Your task to perform on an android device: Add sony triple a to the cart on walmart, then select checkout. Image 0: 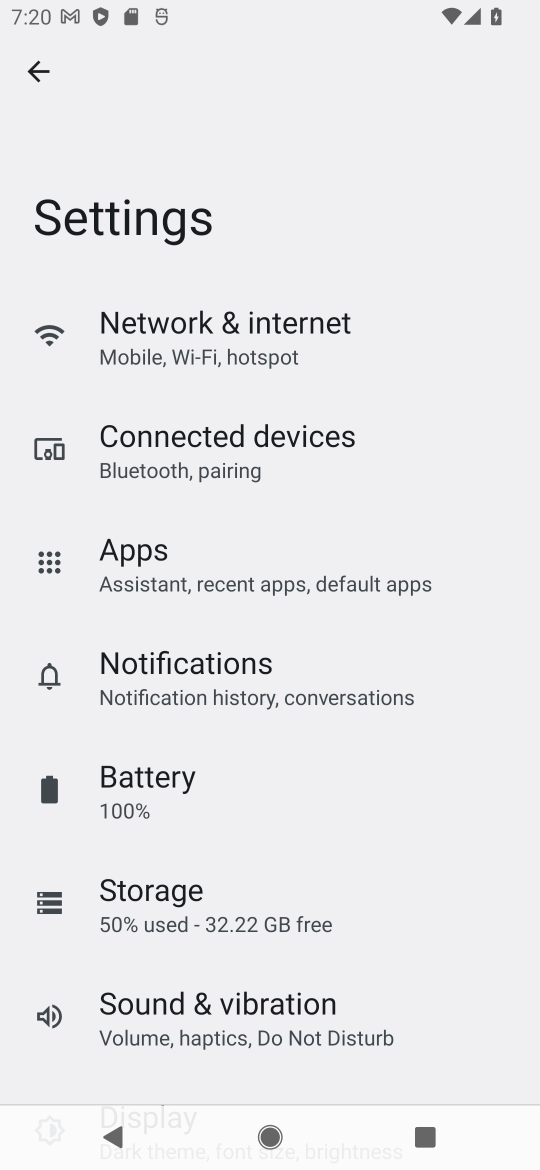
Step 0: press home button
Your task to perform on an android device: Add sony triple a to the cart on walmart, then select checkout. Image 1: 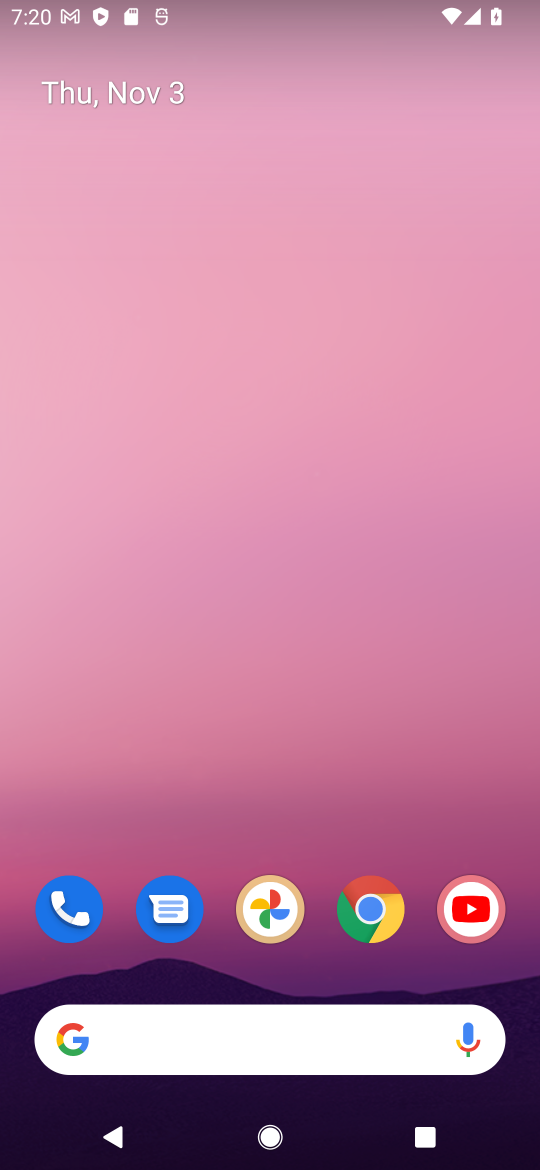
Step 1: drag from (168, 1035) to (232, 507)
Your task to perform on an android device: Add sony triple a to the cart on walmart, then select checkout. Image 2: 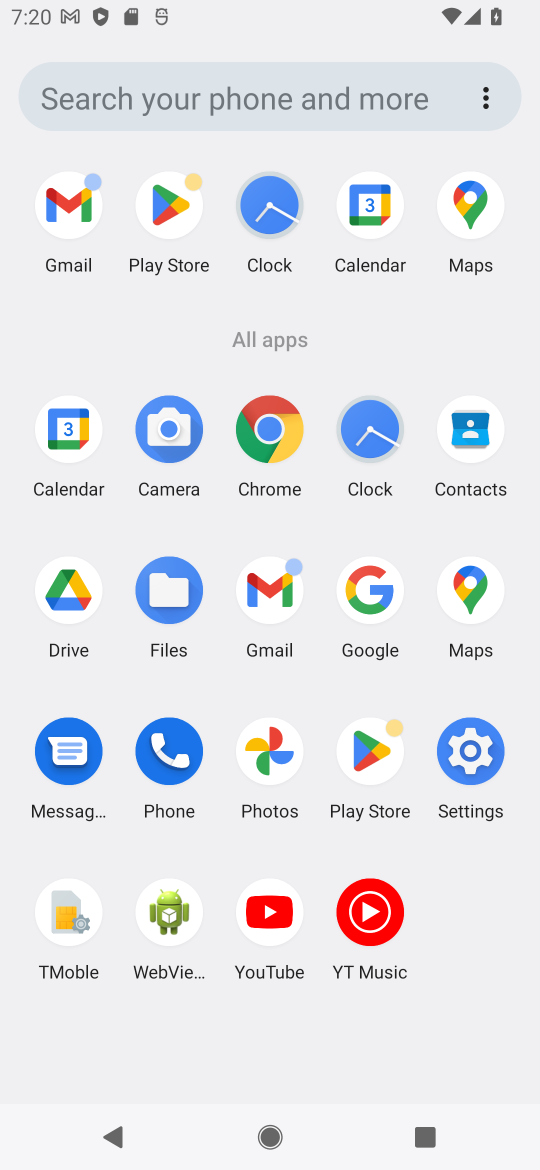
Step 2: click (372, 575)
Your task to perform on an android device: Add sony triple a to the cart on walmart, then select checkout. Image 3: 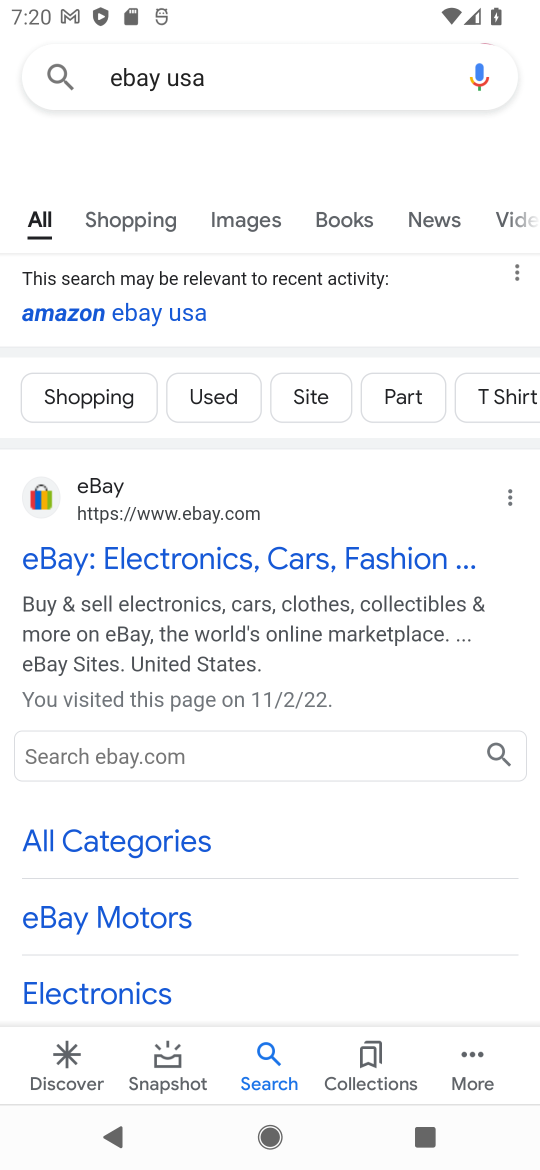
Step 3: click (280, 60)
Your task to perform on an android device: Add sony triple a to the cart on walmart, then select checkout. Image 4: 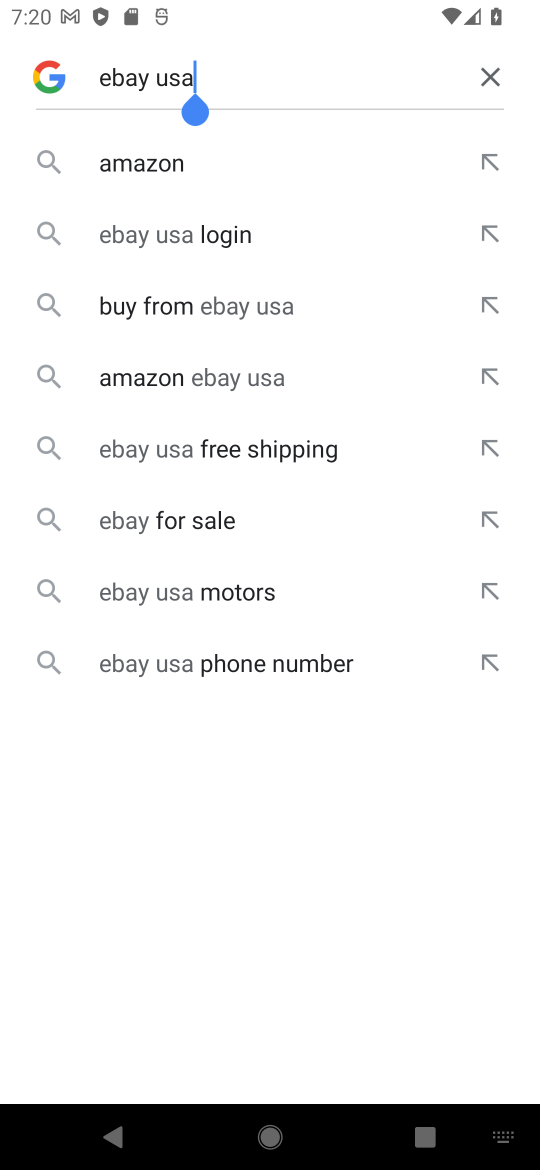
Step 4: click (487, 66)
Your task to perform on an android device: Add sony triple a to the cart on walmart, then select checkout. Image 5: 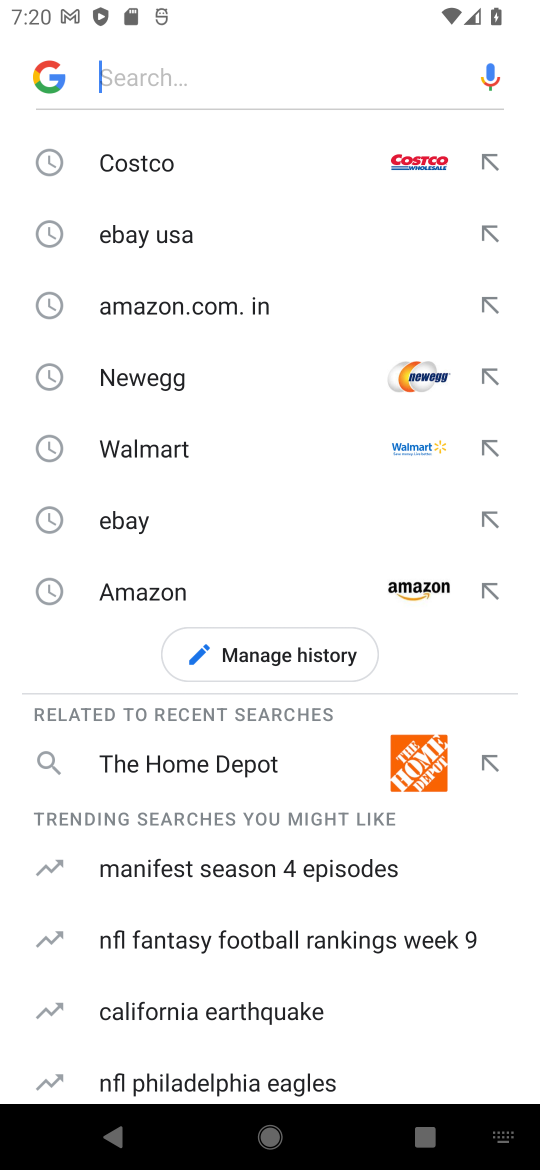
Step 5: click (281, 65)
Your task to perform on an android device: Add sony triple a to the cart on walmart, then select checkout. Image 6: 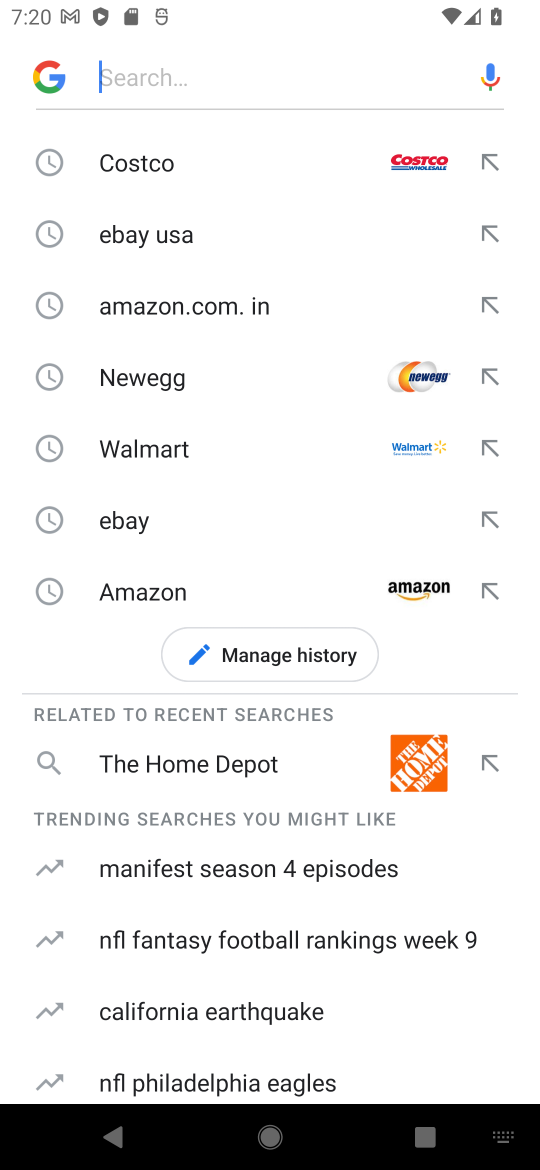
Step 6: type "walmart "
Your task to perform on an android device: Add sony triple a to the cart on walmart, then select checkout. Image 7: 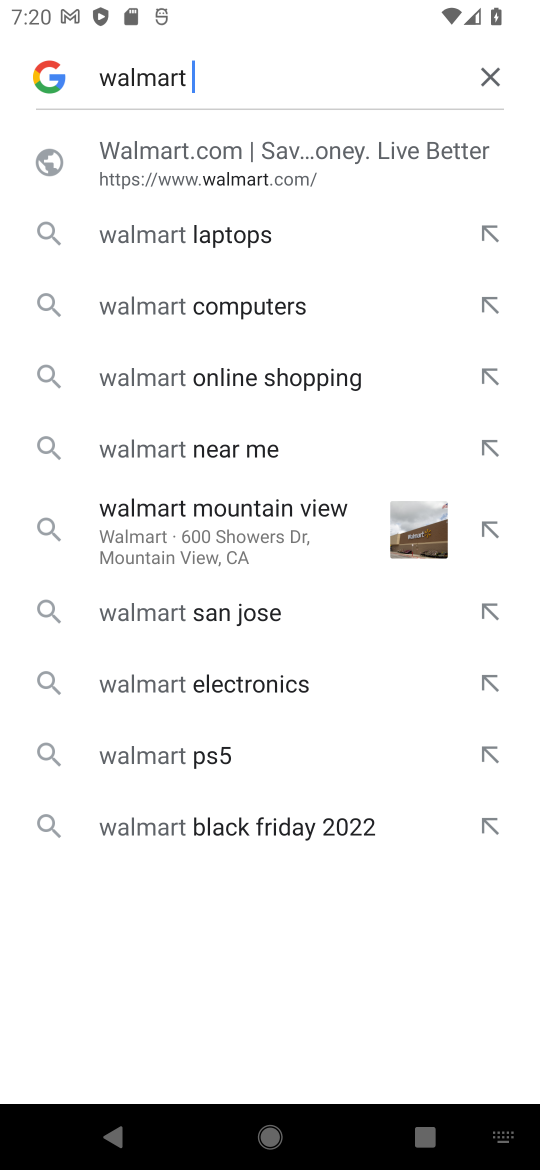
Step 7: click (182, 147)
Your task to perform on an android device: Add sony triple a to the cart on walmart, then select checkout. Image 8: 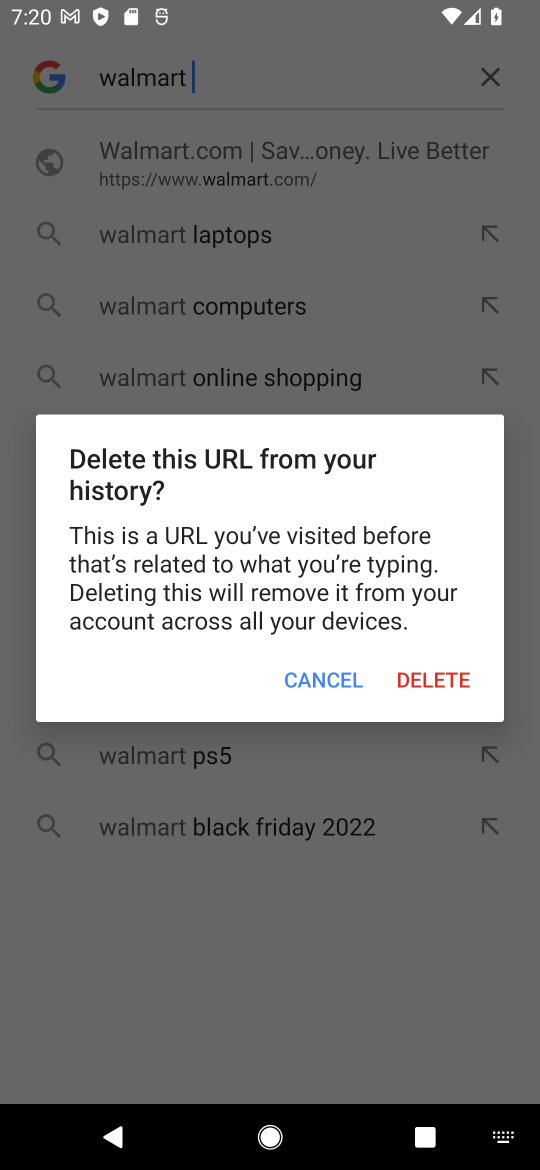
Step 8: click (349, 668)
Your task to perform on an android device: Add sony triple a to the cart on walmart, then select checkout. Image 9: 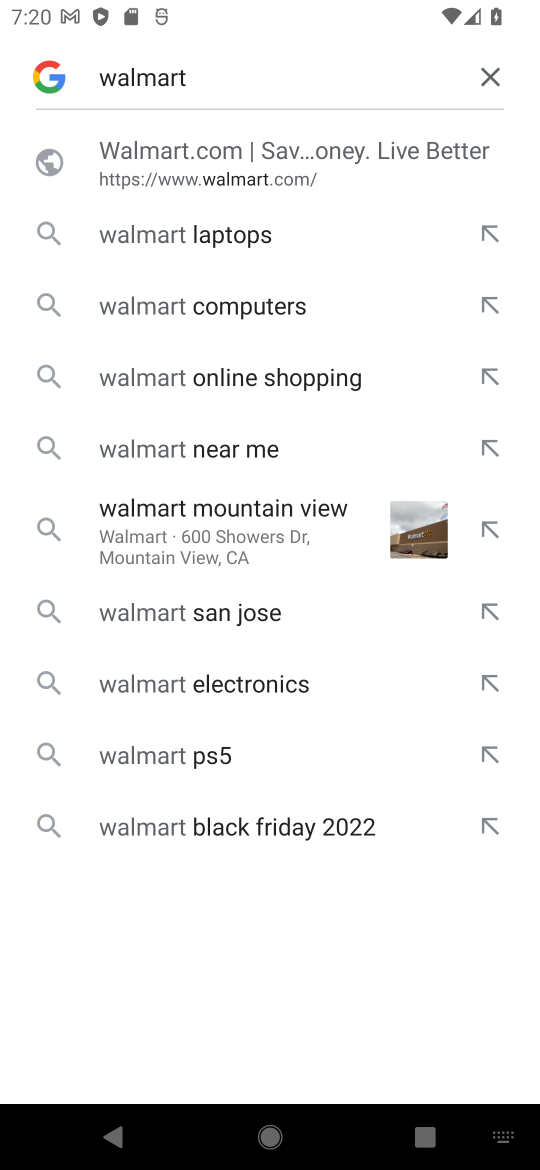
Step 9: click (131, 243)
Your task to perform on an android device: Add sony triple a to the cart on walmart, then select checkout. Image 10: 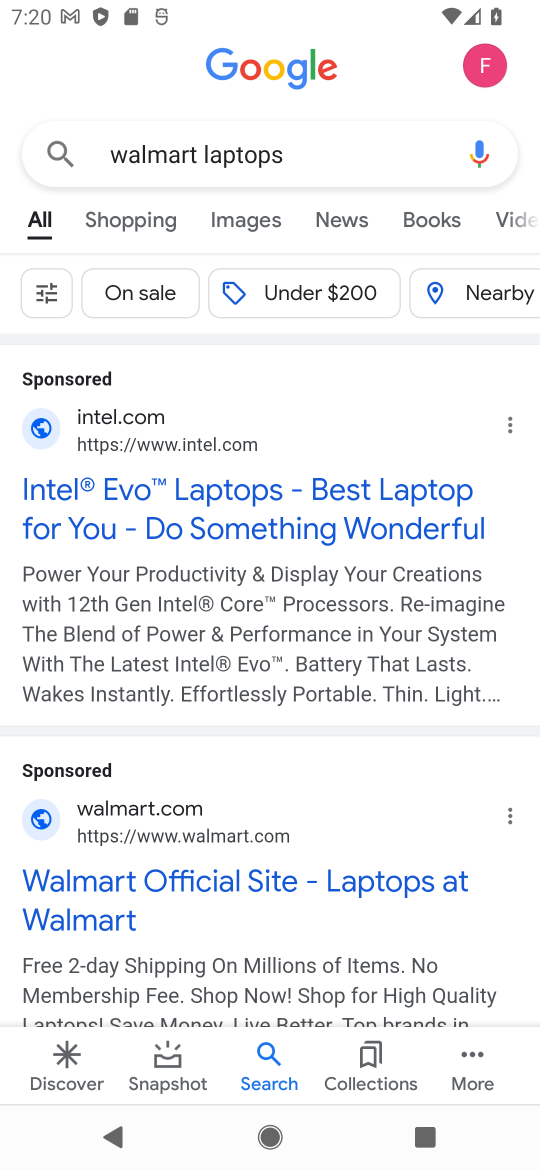
Step 10: drag from (230, 863) to (264, 178)
Your task to perform on an android device: Add sony triple a to the cart on walmart, then select checkout. Image 11: 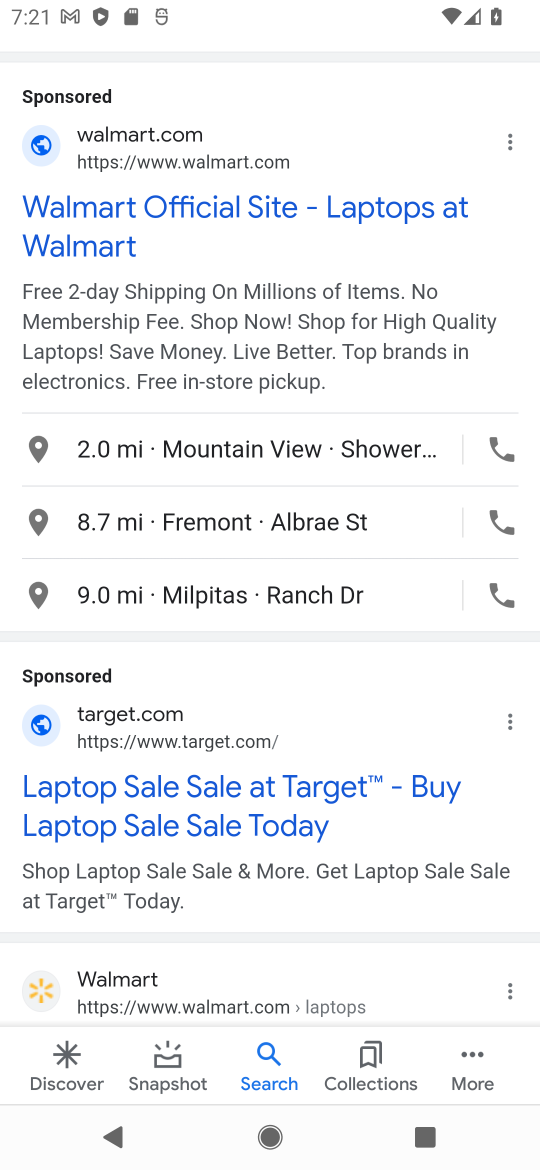
Step 11: drag from (158, 724) to (227, 230)
Your task to perform on an android device: Add sony triple a to the cart on walmart, then select checkout. Image 12: 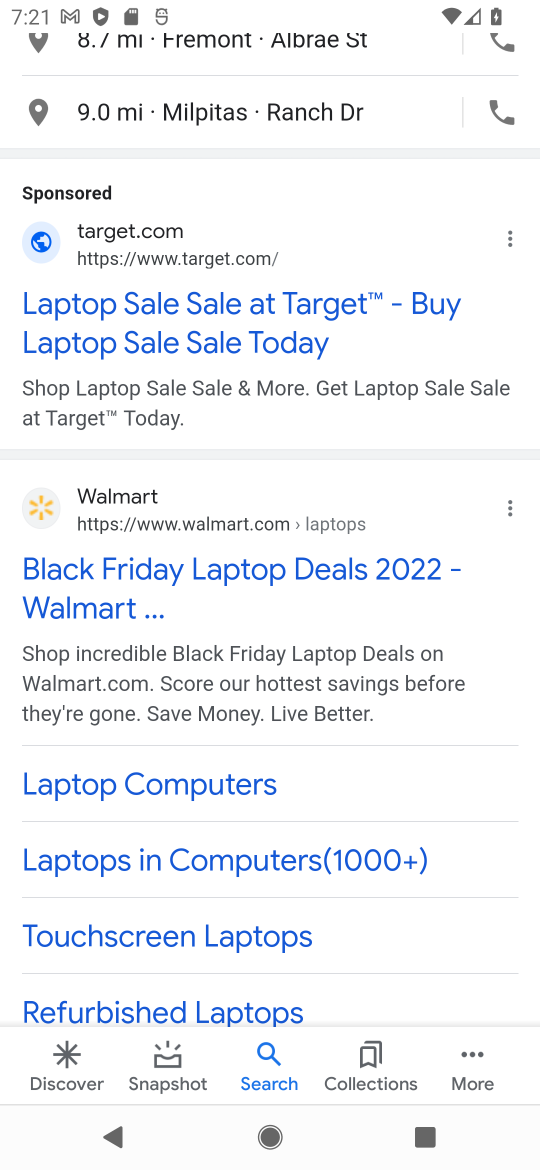
Step 12: click (41, 490)
Your task to perform on an android device: Add sony triple a to the cart on walmart, then select checkout. Image 13: 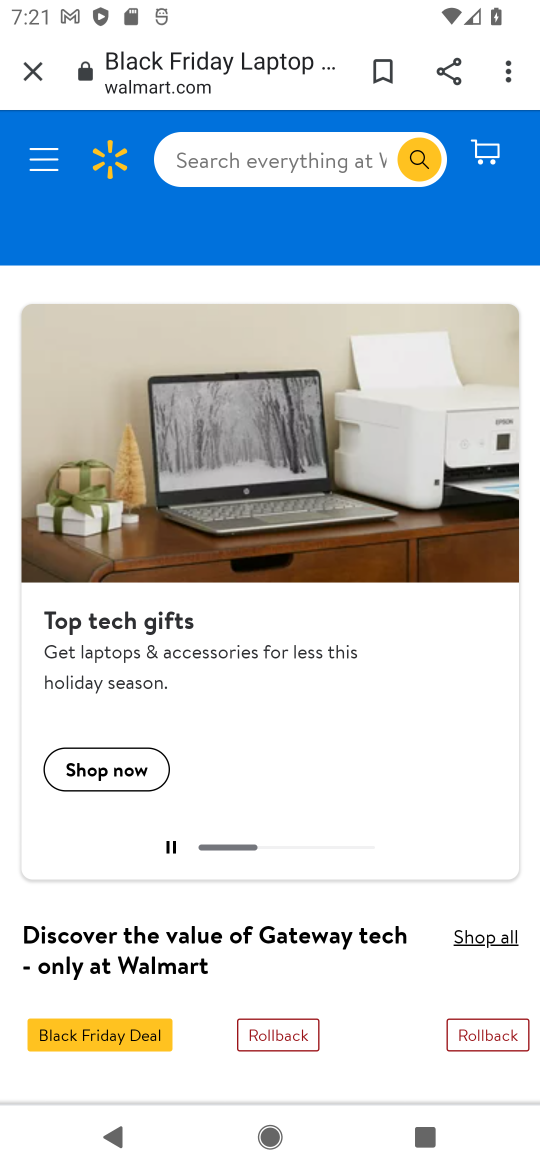
Step 13: click (284, 154)
Your task to perform on an android device: Add sony triple a to the cart on walmart, then select checkout. Image 14: 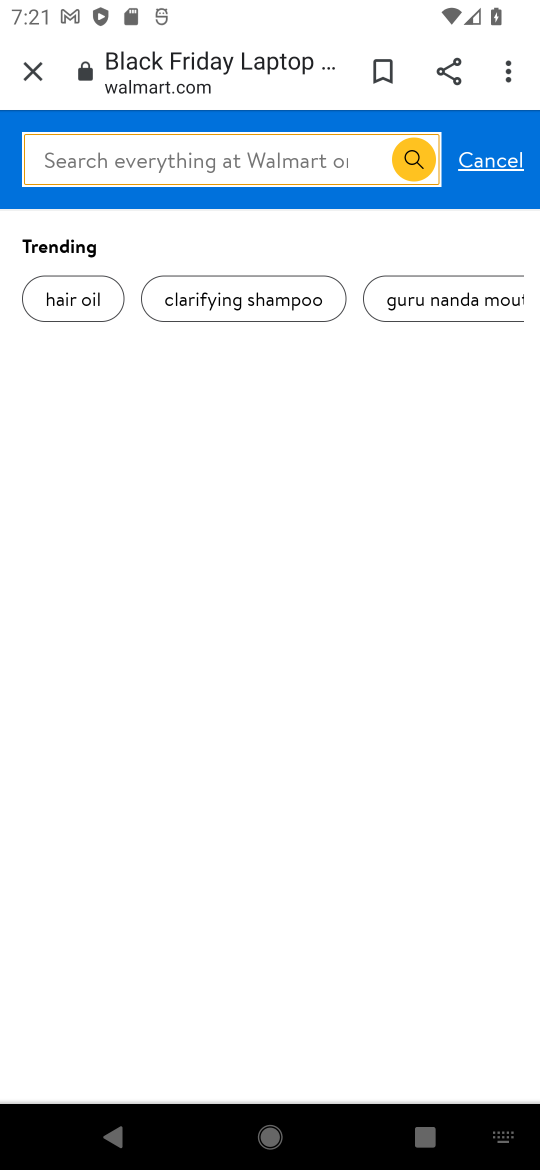
Step 14: click (191, 144)
Your task to perform on an android device: Add sony triple a to the cart on walmart, then select checkout. Image 15: 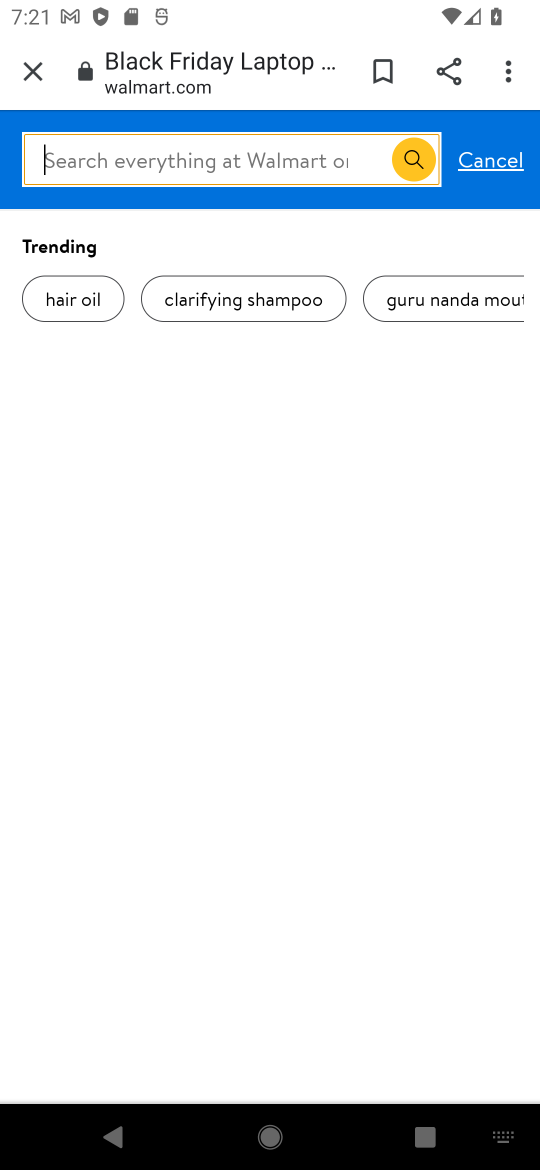
Step 15: type "sony triple  "
Your task to perform on an android device: Add sony triple a to the cart on walmart, then select checkout. Image 16: 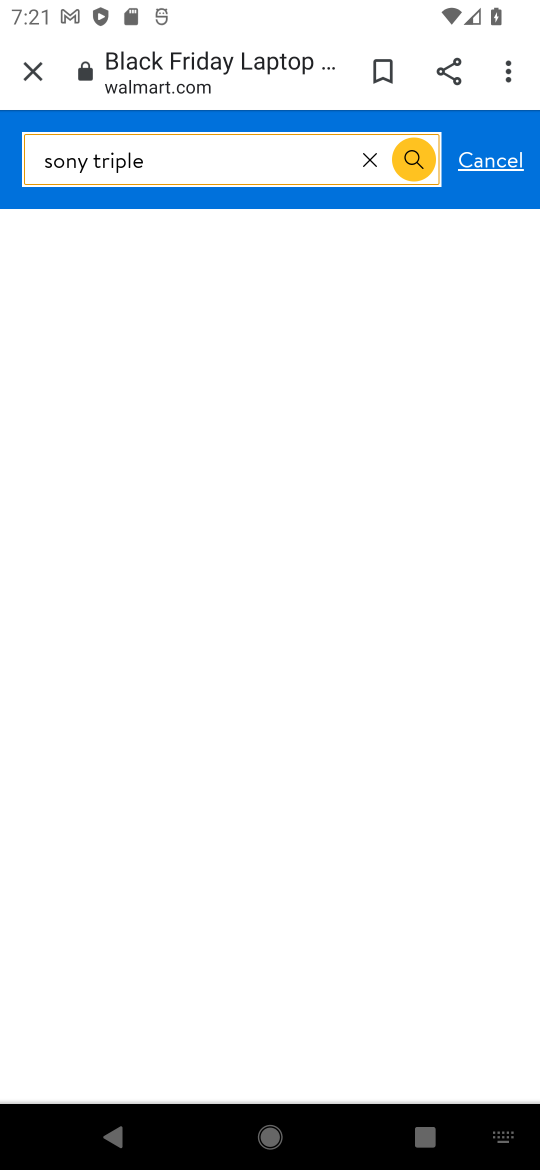
Step 16: click (405, 151)
Your task to perform on an android device: Add sony triple a to the cart on walmart, then select checkout. Image 17: 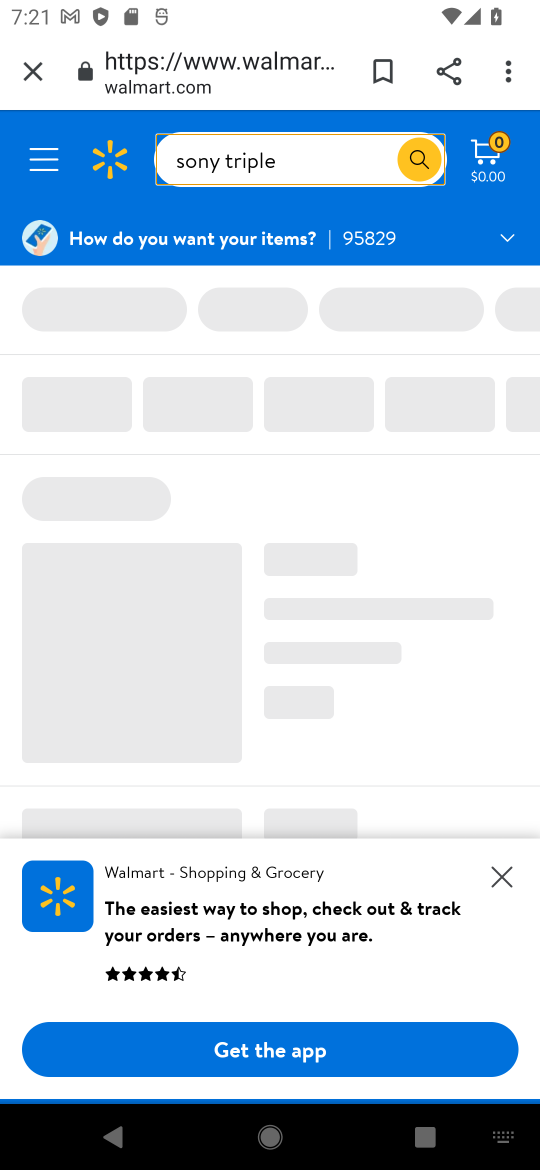
Step 17: click (430, 172)
Your task to perform on an android device: Add sony triple a to the cart on walmart, then select checkout. Image 18: 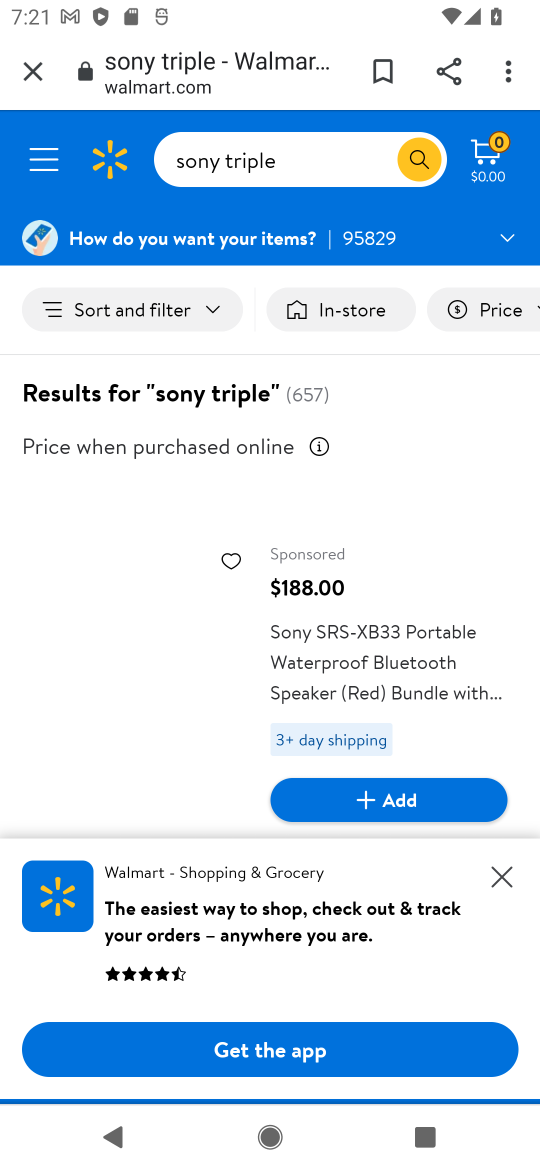
Step 18: click (495, 889)
Your task to perform on an android device: Add sony triple a to the cart on walmart, then select checkout. Image 19: 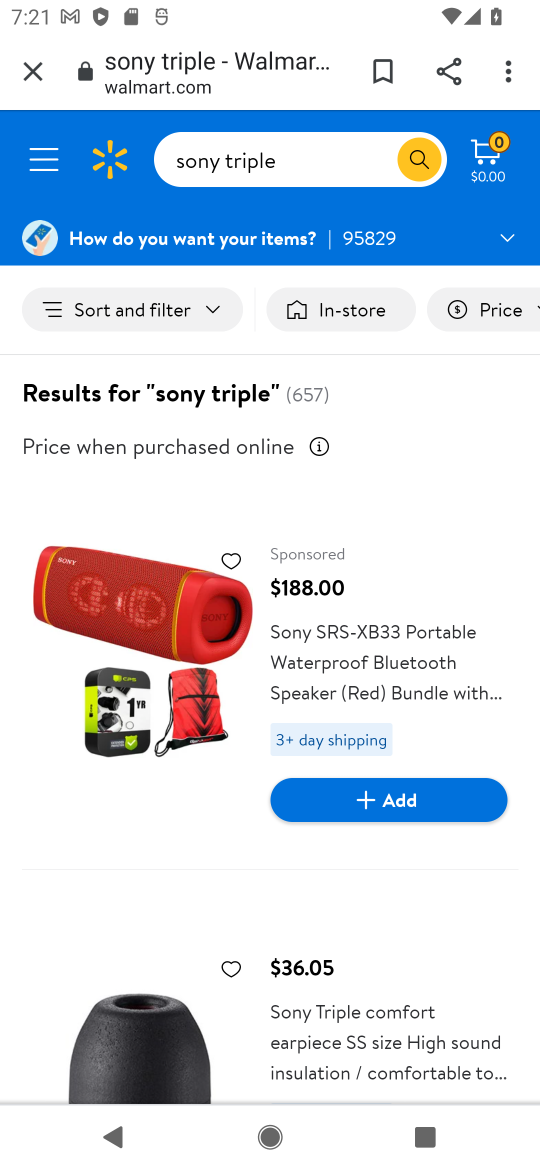
Step 19: drag from (80, 1099) to (156, 558)
Your task to perform on an android device: Add sony triple a to the cart on walmart, then select checkout. Image 20: 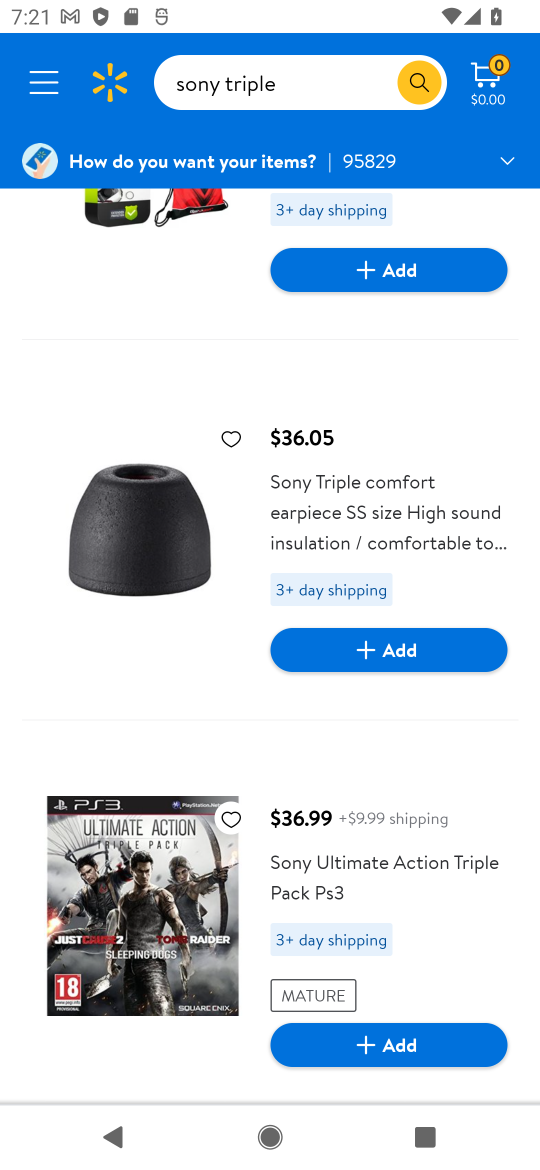
Step 20: click (409, 642)
Your task to perform on an android device: Add sony triple a to the cart on walmart, then select checkout. Image 21: 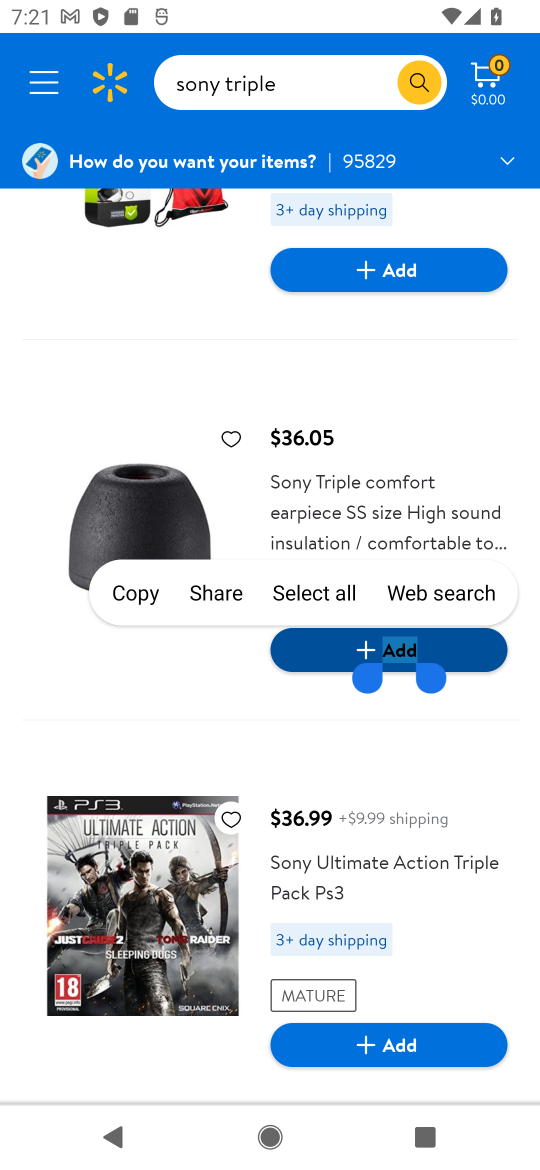
Step 21: click (448, 657)
Your task to perform on an android device: Add sony triple a to the cart on walmart, then select checkout. Image 22: 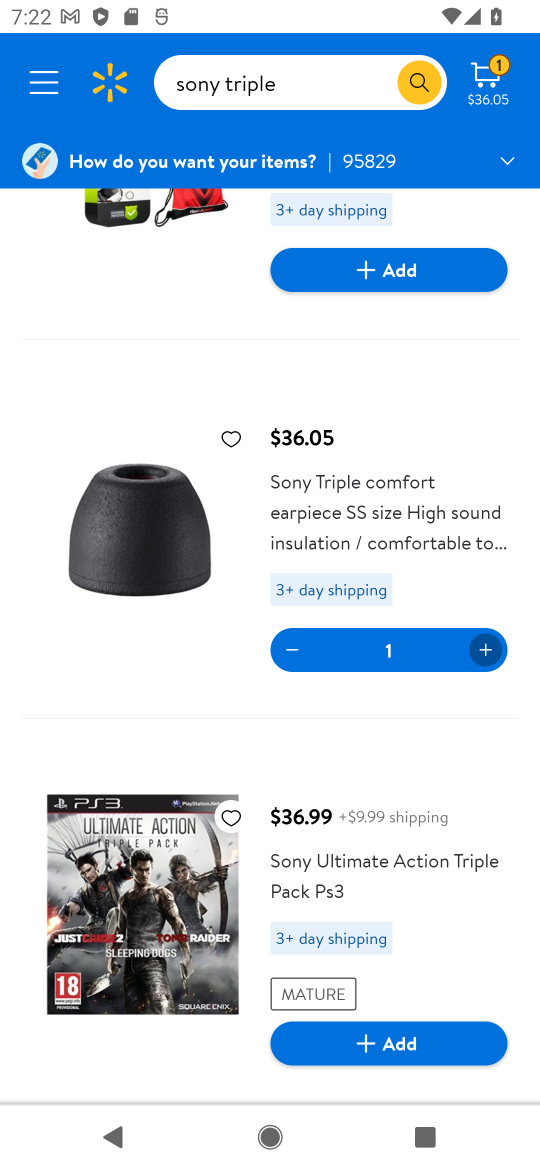
Step 22: task complete